Your task to perform on an android device: turn notification dots on Image 0: 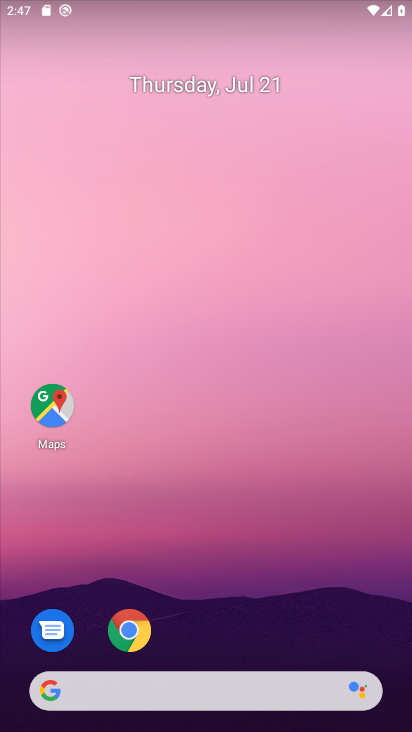
Step 0: drag from (191, 358) to (191, 142)
Your task to perform on an android device: turn notification dots on Image 1: 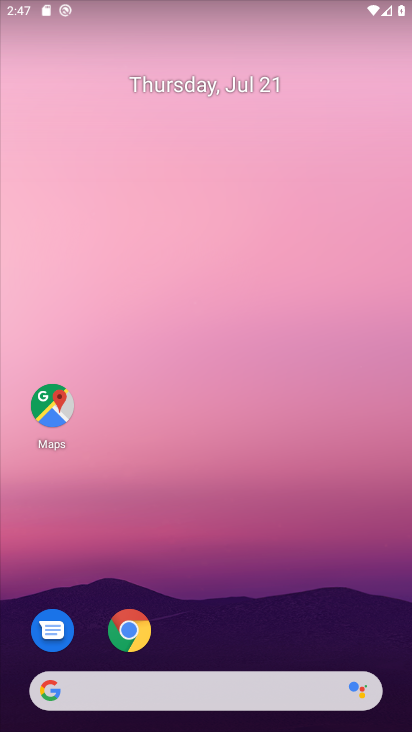
Step 1: drag from (211, 525) to (160, 56)
Your task to perform on an android device: turn notification dots on Image 2: 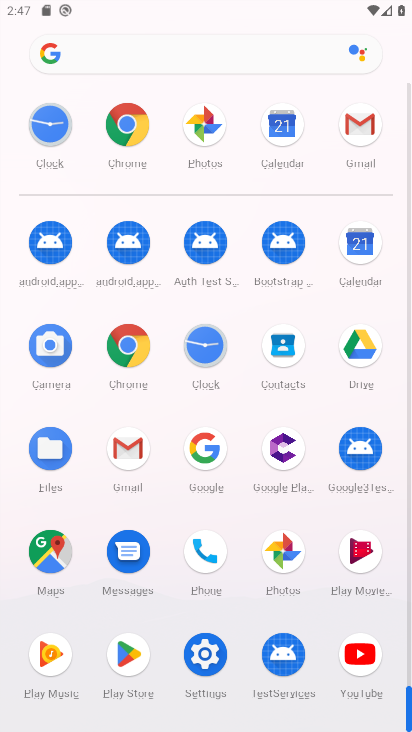
Step 2: click (190, 641)
Your task to perform on an android device: turn notification dots on Image 3: 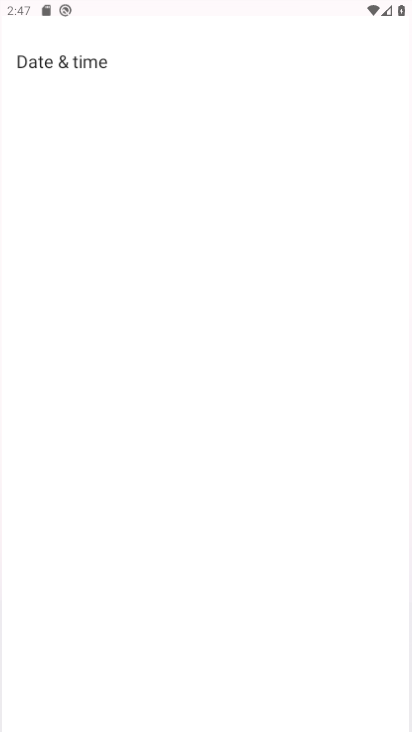
Step 3: click (191, 641)
Your task to perform on an android device: turn notification dots on Image 4: 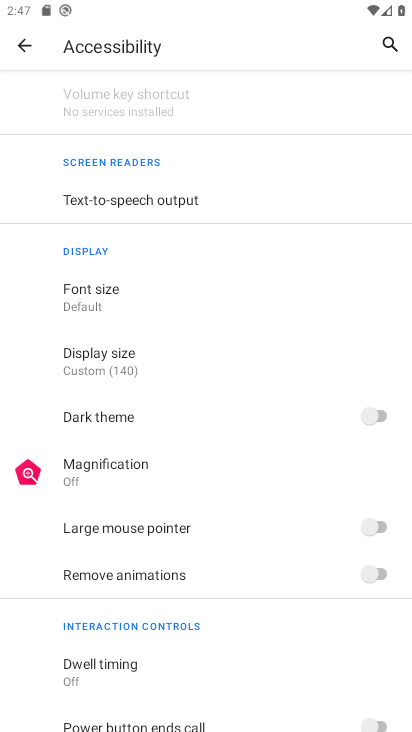
Step 4: click (32, 41)
Your task to perform on an android device: turn notification dots on Image 5: 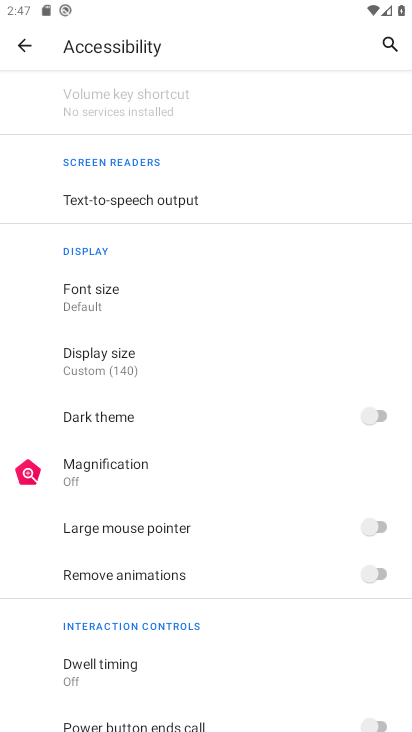
Step 5: click (31, 40)
Your task to perform on an android device: turn notification dots on Image 6: 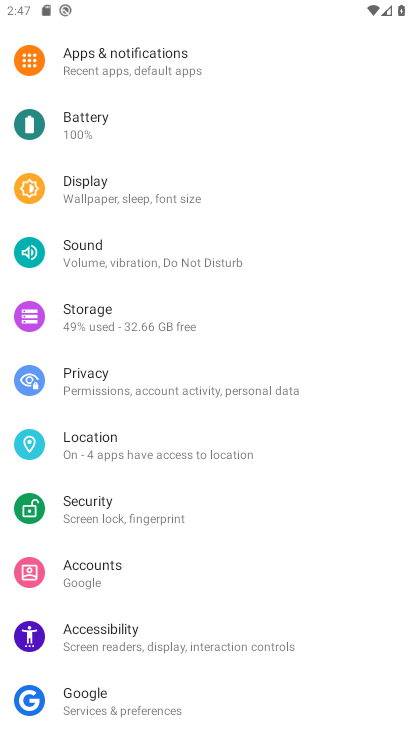
Step 6: drag from (121, 576) to (153, 57)
Your task to perform on an android device: turn notification dots on Image 7: 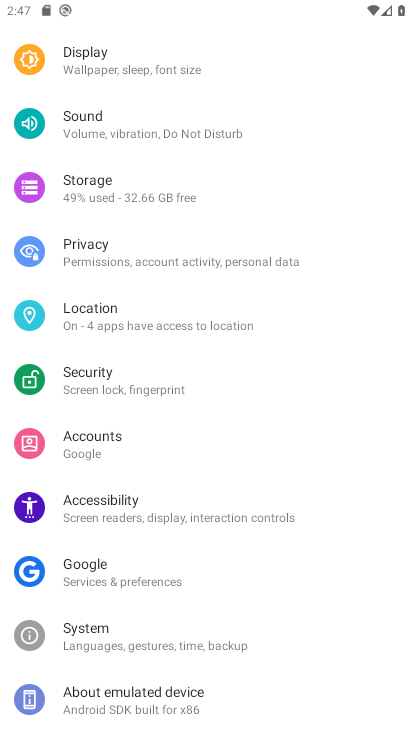
Step 7: drag from (91, 129) to (165, 491)
Your task to perform on an android device: turn notification dots on Image 8: 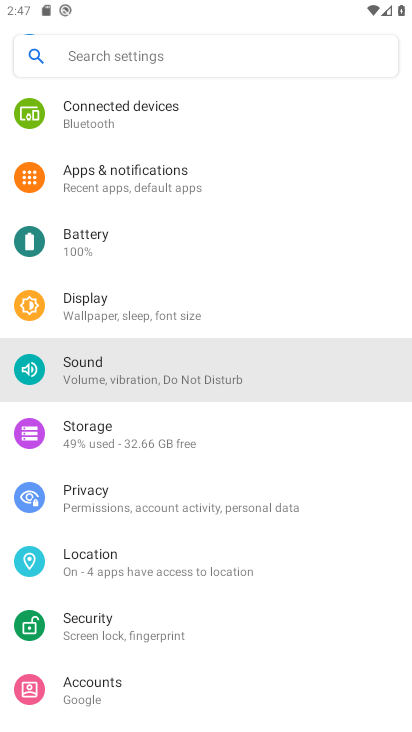
Step 8: drag from (160, 180) to (176, 472)
Your task to perform on an android device: turn notification dots on Image 9: 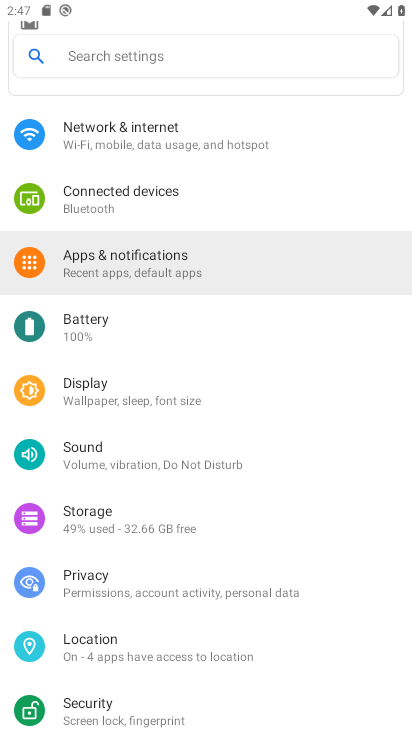
Step 9: drag from (129, 172) to (171, 456)
Your task to perform on an android device: turn notification dots on Image 10: 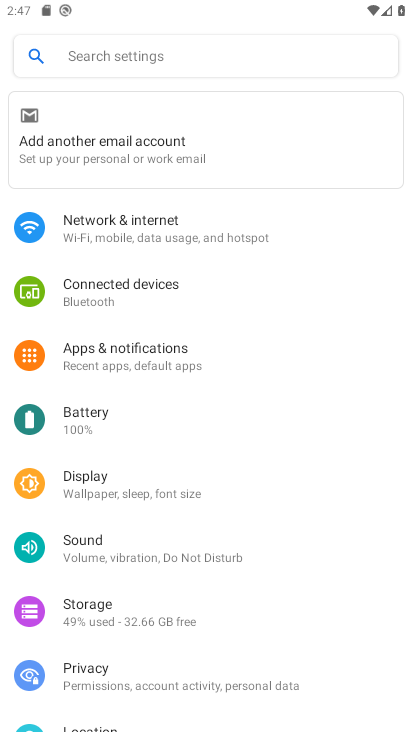
Step 10: click (106, 352)
Your task to perform on an android device: turn notification dots on Image 11: 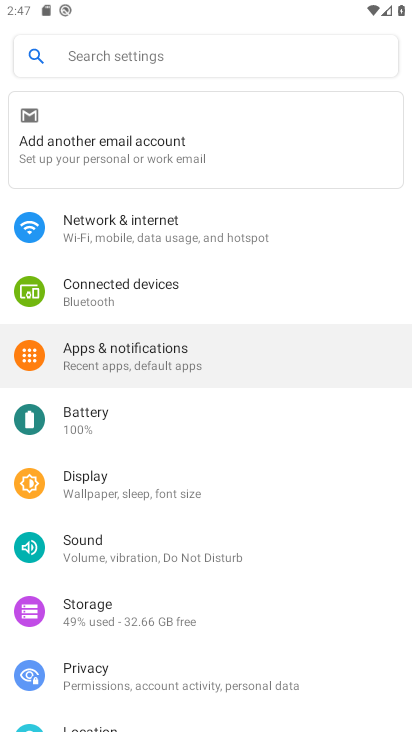
Step 11: click (103, 354)
Your task to perform on an android device: turn notification dots on Image 12: 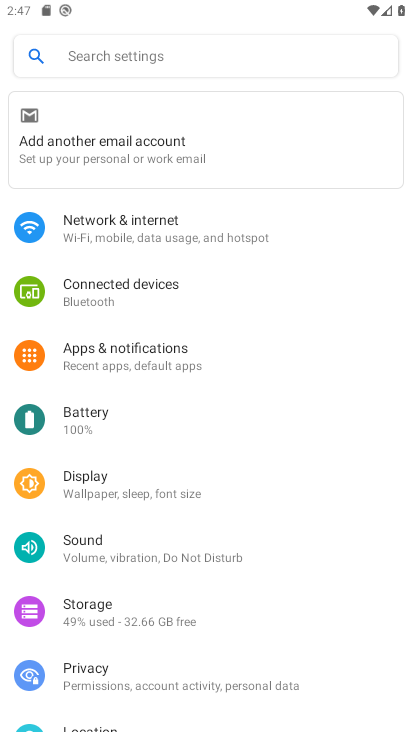
Step 12: click (103, 354)
Your task to perform on an android device: turn notification dots on Image 13: 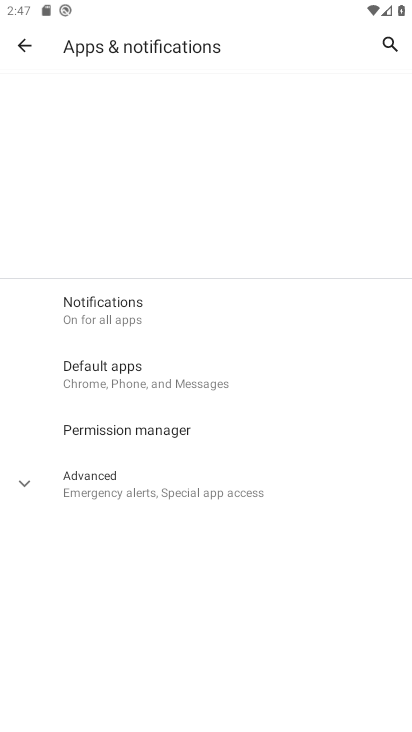
Step 13: click (113, 360)
Your task to perform on an android device: turn notification dots on Image 14: 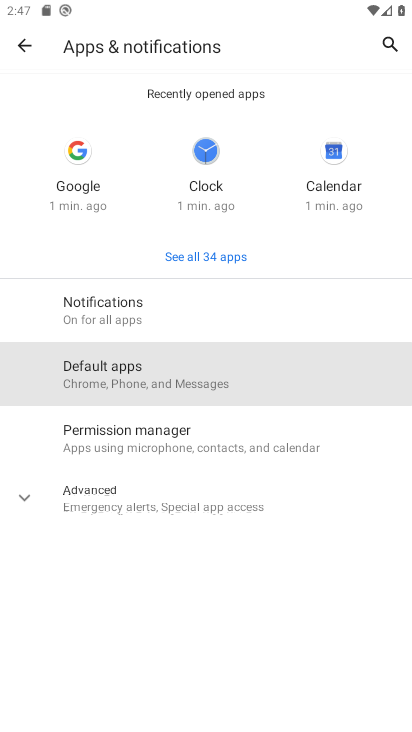
Step 14: click (120, 359)
Your task to perform on an android device: turn notification dots on Image 15: 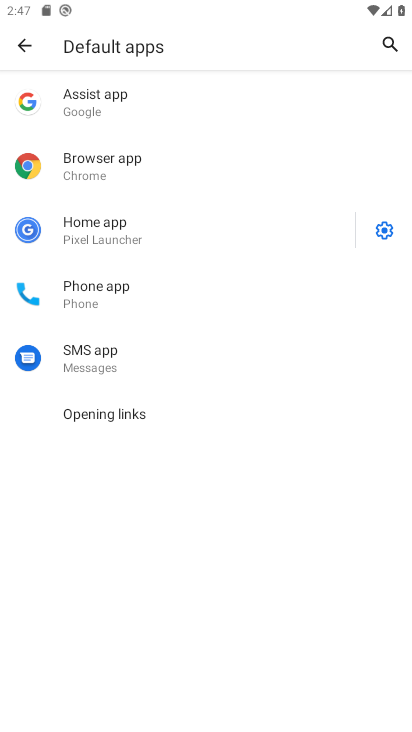
Step 15: click (28, 34)
Your task to perform on an android device: turn notification dots on Image 16: 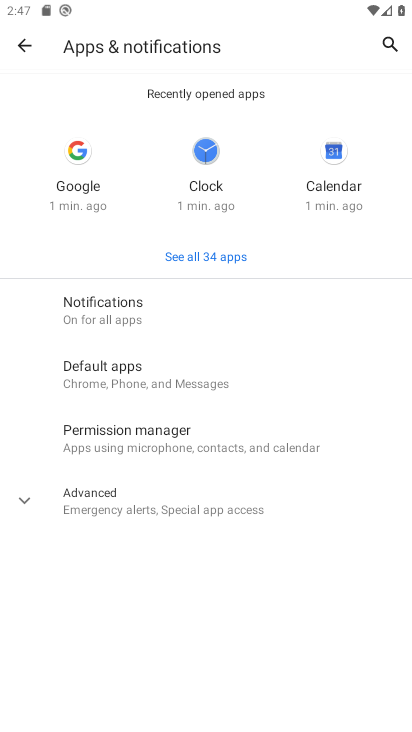
Step 16: click (104, 316)
Your task to perform on an android device: turn notification dots on Image 17: 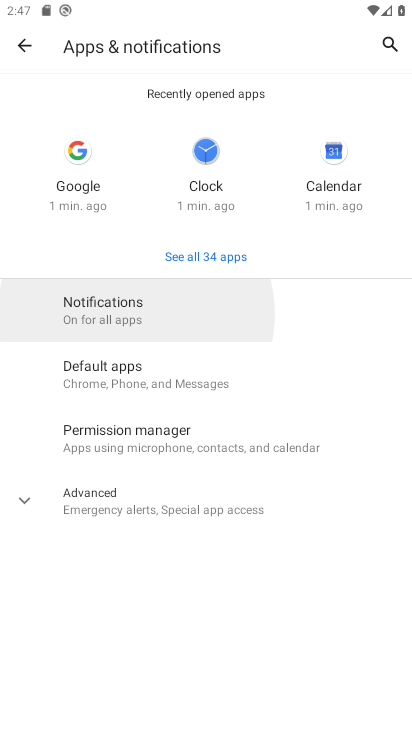
Step 17: click (108, 311)
Your task to perform on an android device: turn notification dots on Image 18: 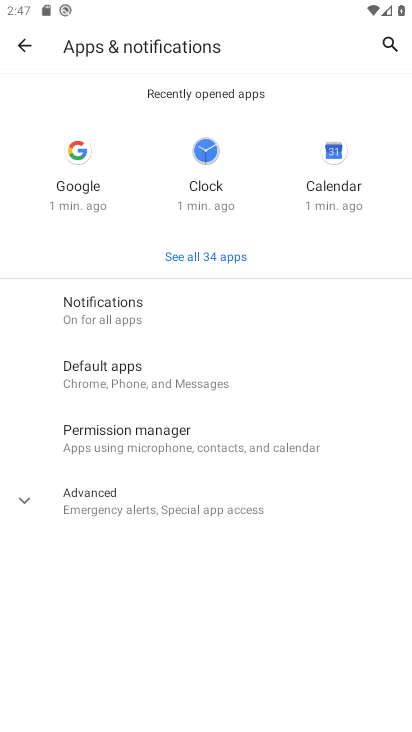
Step 18: click (109, 306)
Your task to perform on an android device: turn notification dots on Image 19: 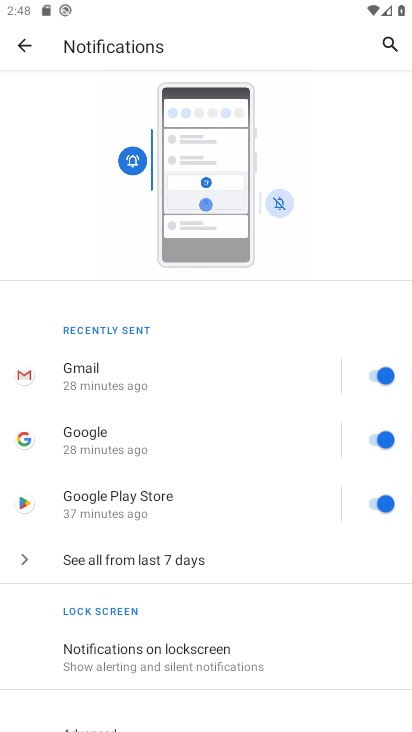
Step 19: drag from (161, 648) to (141, 287)
Your task to perform on an android device: turn notification dots on Image 20: 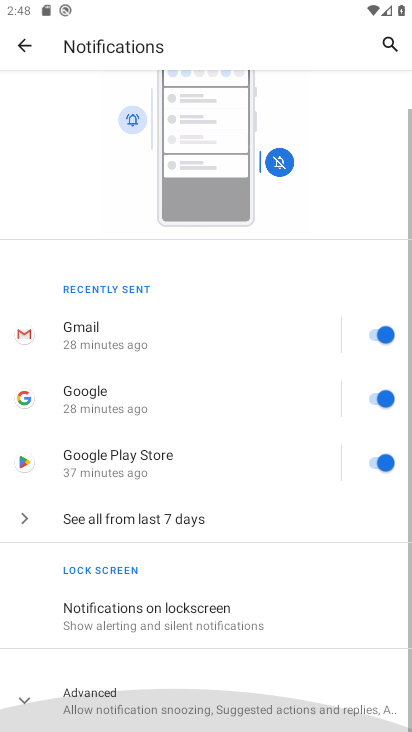
Step 20: click (150, 290)
Your task to perform on an android device: turn notification dots on Image 21: 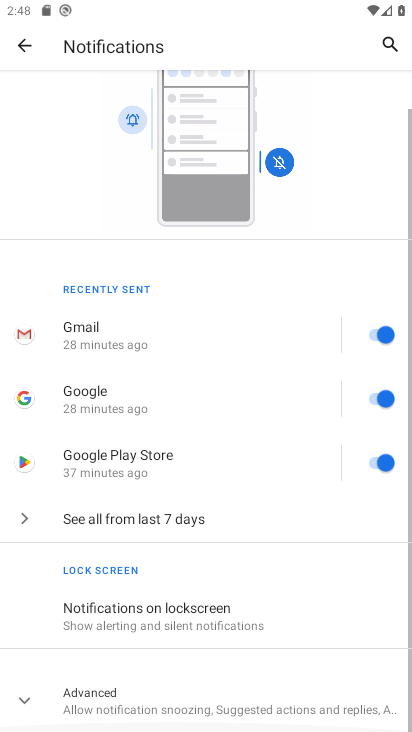
Step 21: drag from (156, 451) to (156, 245)
Your task to perform on an android device: turn notification dots on Image 22: 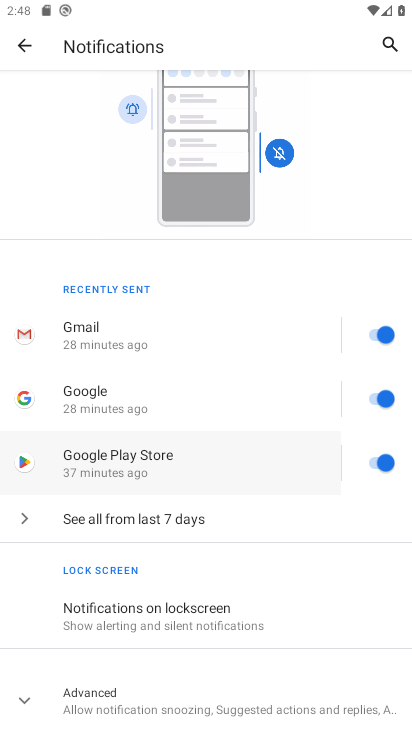
Step 22: drag from (159, 447) to (179, 253)
Your task to perform on an android device: turn notification dots on Image 23: 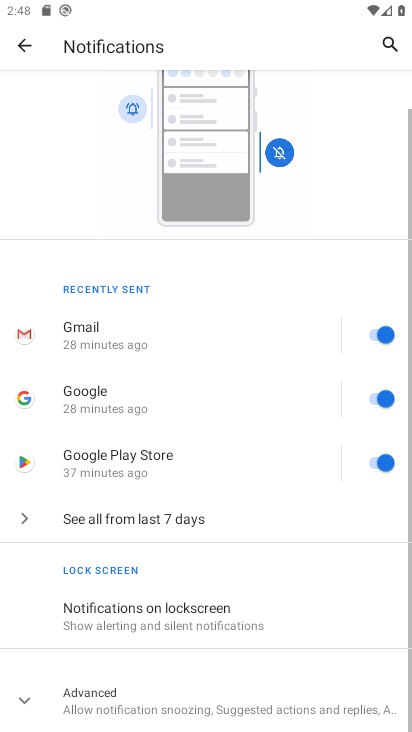
Step 23: drag from (177, 401) to (150, 199)
Your task to perform on an android device: turn notification dots on Image 24: 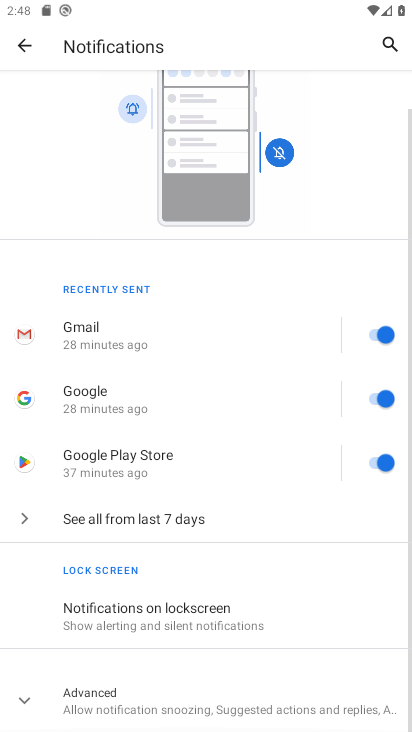
Step 24: drag from (151, 435) to (154, 189)
Your task to perform on an android device: turn notification dots on Image 25: 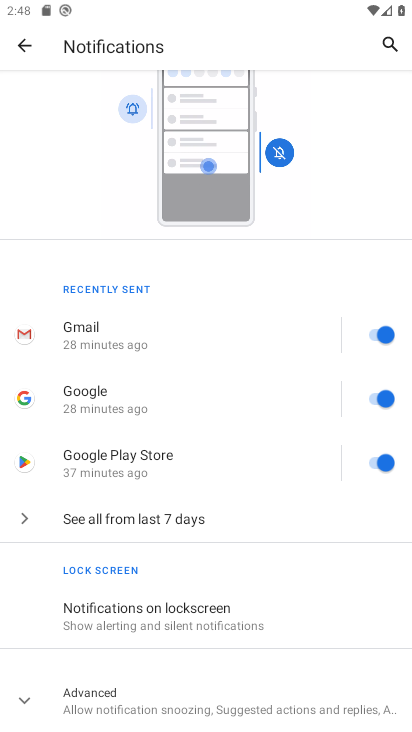
Step 25: click (92, 702)
Your task to perform on an android device: turn notification dots on Image 26: 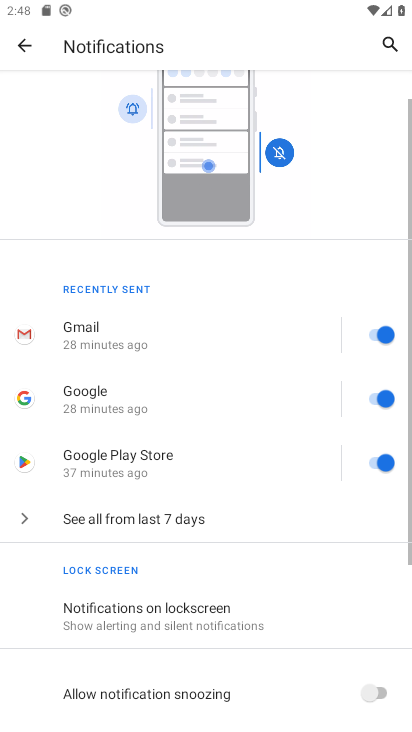
Step 26: click (93, 697)
Your task to perform on an android device: turn notification dots on Image 27: 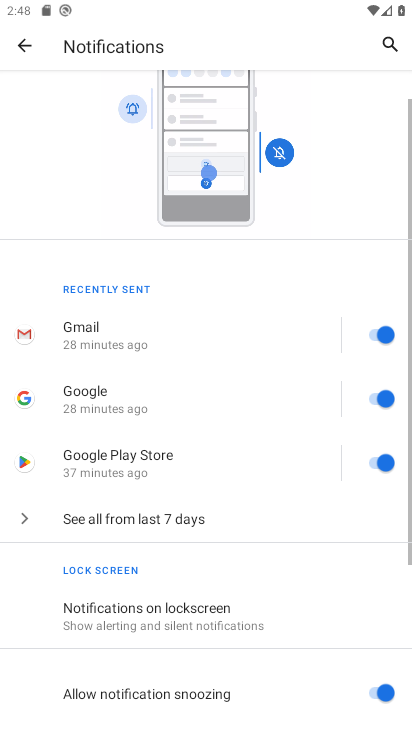
Step 27: drag from (225, 528) to (193, 255)
Your task to perform on an android device: turn notification dots on Image 28: 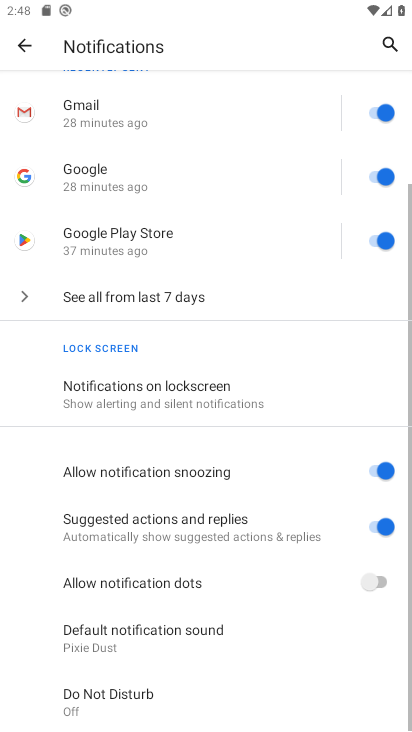
Step 28: drag from (171, 458) to (171, 379)
Your task to perform on an android device: turn notification dots on Image 29: 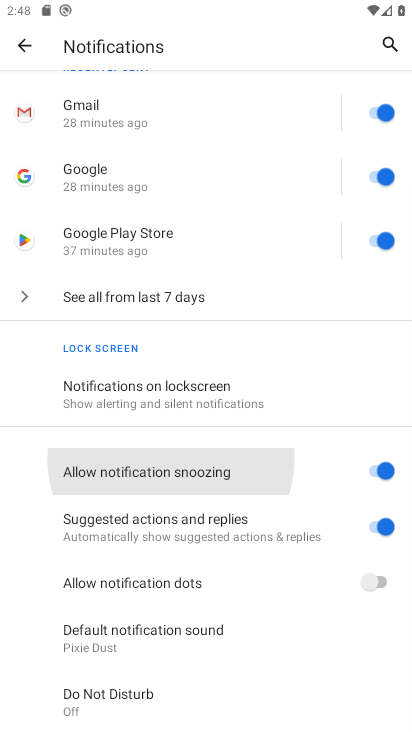
Step 29: drag from (186, 650) to (202, 400)
Your task to perform on an android device: turn notification dots on Image 30: 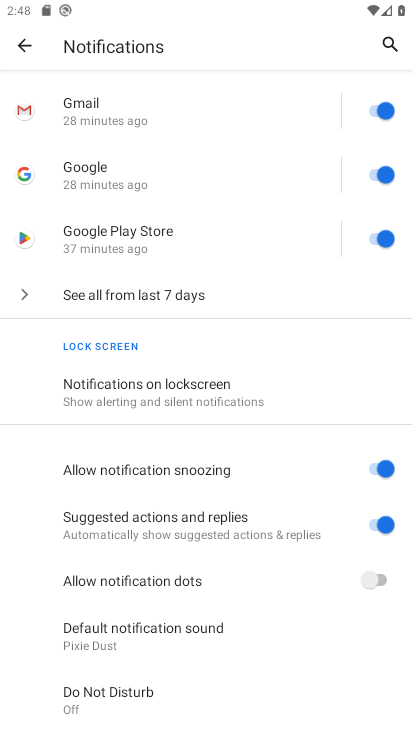
Step 30: click (377, 623)
Your task to perform on an android device: turn notification dots on Image 31: 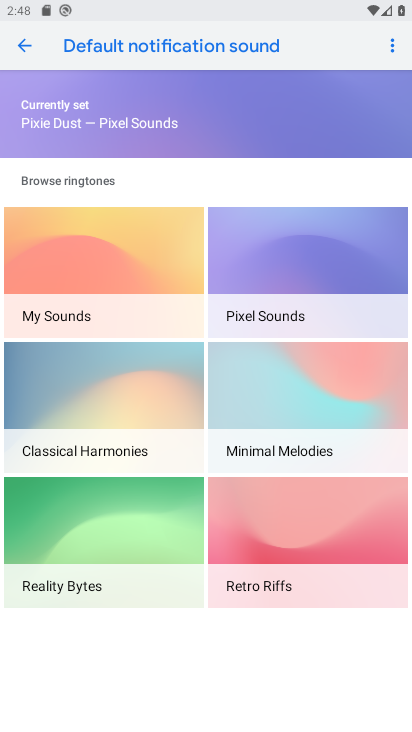
Step 31: click (25, 45)
Your task to perform on an android device: turn notification dots on Image 32: 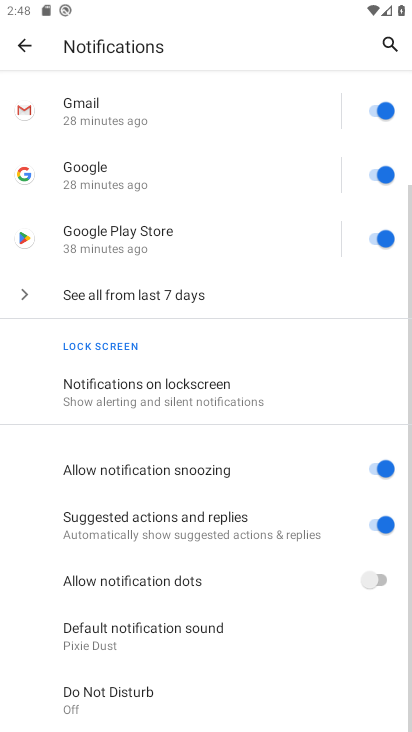
Step 32: click (366, 581)
Your task to perform on an android device: turn notification dots on Image 33: 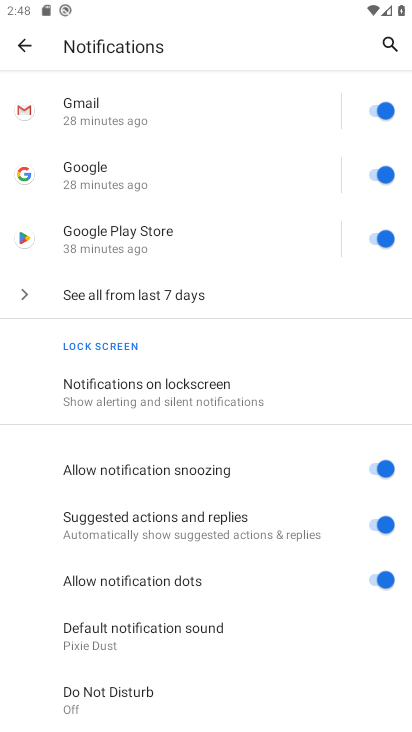
Step 33: task complete